Your task to perform on an android device: Open calendar and show me the fourth week of next month Image 0: 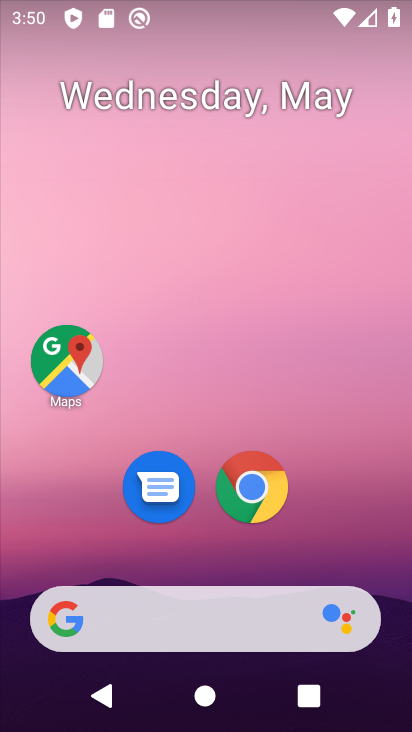
Step 0: drag from (247, 658) to (320, 305)
Your task to perform on an android device: Open calendar and show me the fourth week of next month Image 1: 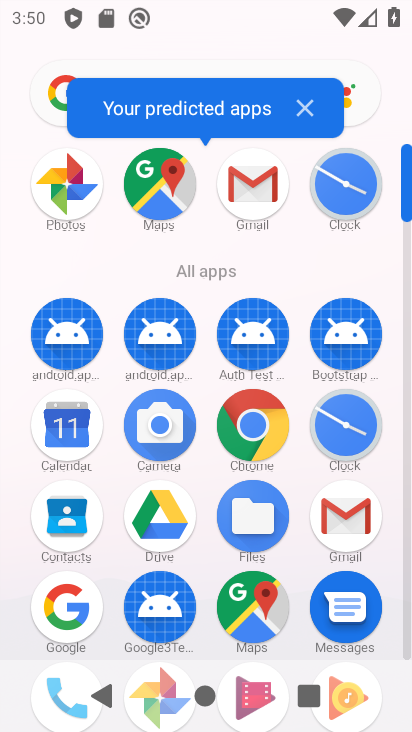
Step 1: click (71, 416)
Your task to perform on an android device: Open calendar and show me the fourth week of next month Image 2: 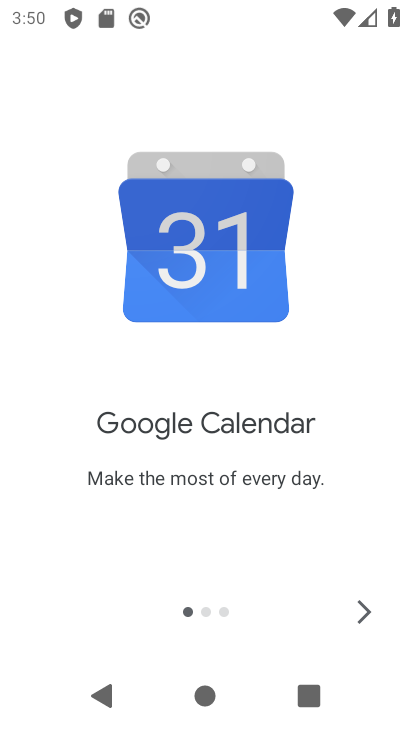
Step 2: click (370, 616)
Your task to perform on an android device: Open calendar and show me the fourth week of next month Image 3: 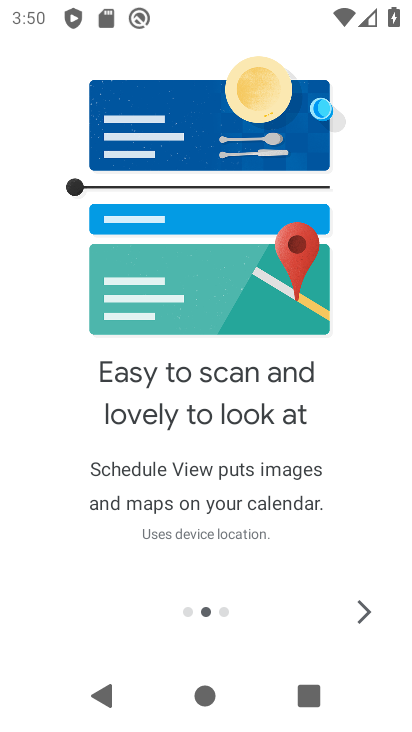
Step 3: click (367, 613)
Your task to perform on an android device: Open calendar and show me the fourth week of next month Image 4: 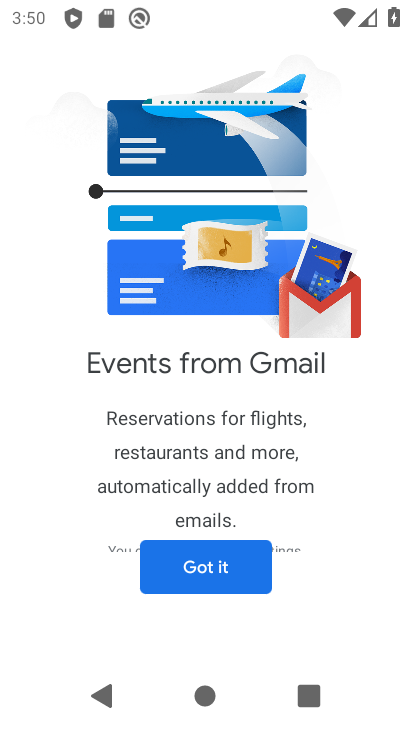
Step 4: click (167, 563)
Your task to perform on an android device: Open calendar and show me the fourth week of next month Image 5: 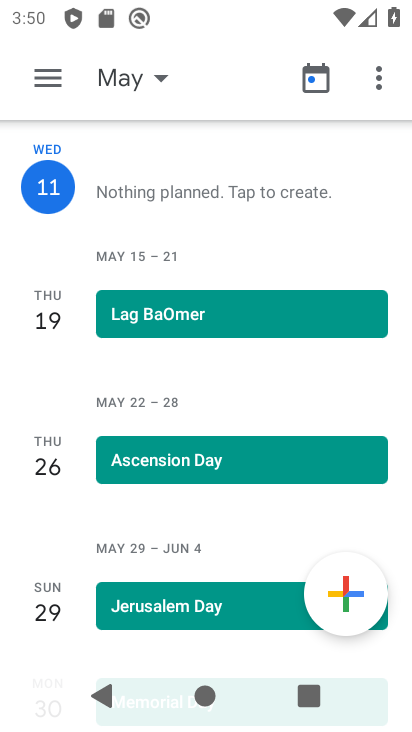
Step 5: click (46, 77)
Your task to perform on an android device: Open calendar and show me the fourth week of next month Image 6: 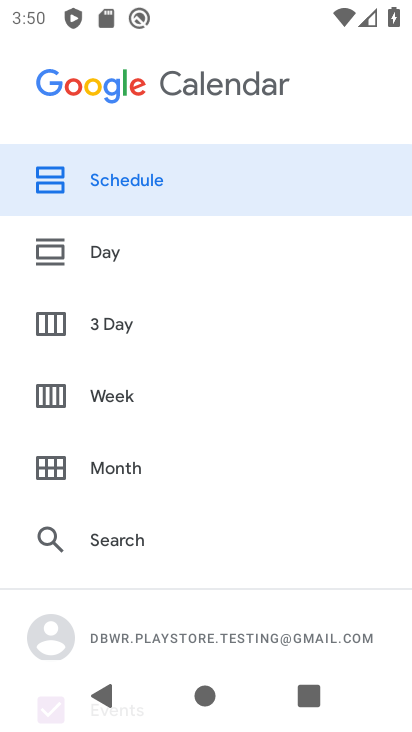
Step 6: click (110, 468)
Your task to perform on an android device: Open calendar and show me the fourth week of next month Image 7: 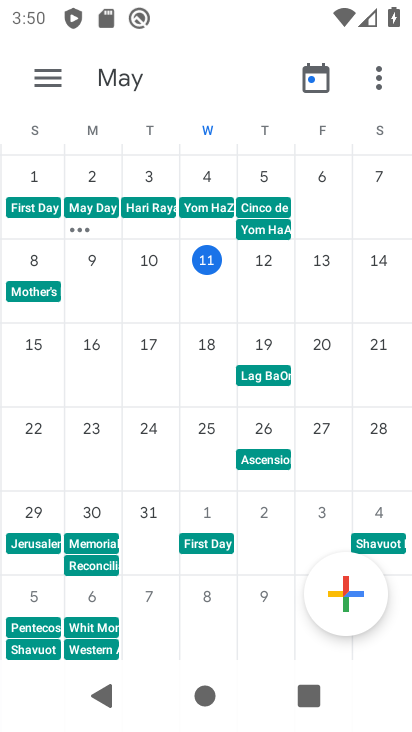
Step 7: drag from (351, 440) to (35, 453)
Your task to perform on an android device: Open calendar and show me the fourth week of next month Image 8: 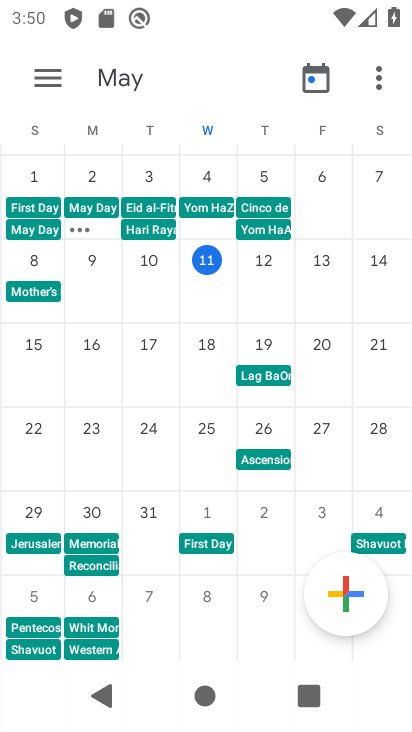
Step 8: drag from (375, 445) to (11, 361)
Your task to perform on an android device: Open calendar and show me the fourth week of next month Image 9: 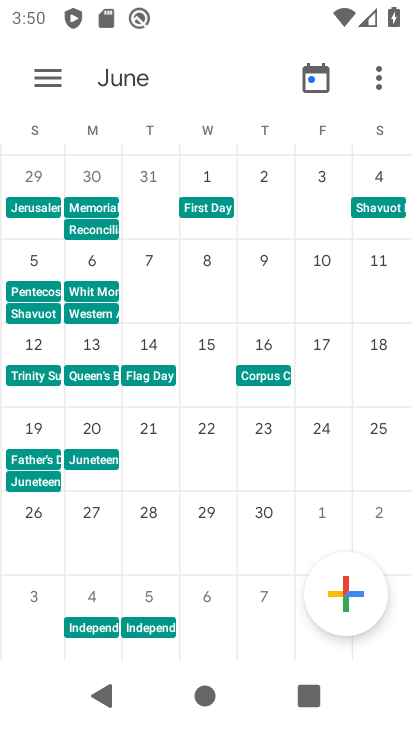
Step 9: click (88, 429)
Your task to perform on an android device: Open calendar and show me the fourth week of next month Image 10: 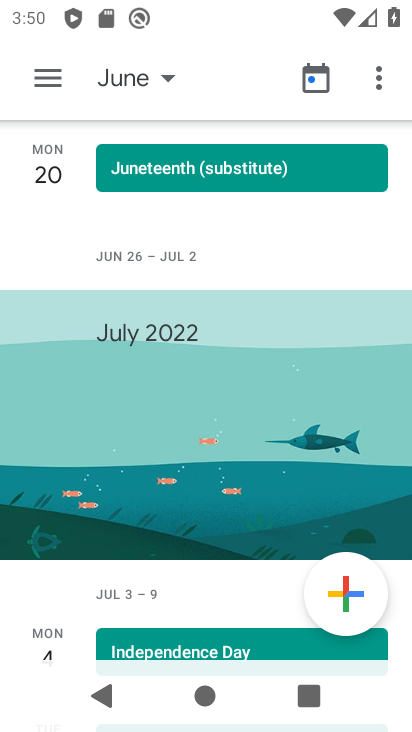
Step 10: task complete